Your task to perform on an android device: see sites visited before in the chrome app Image 0: 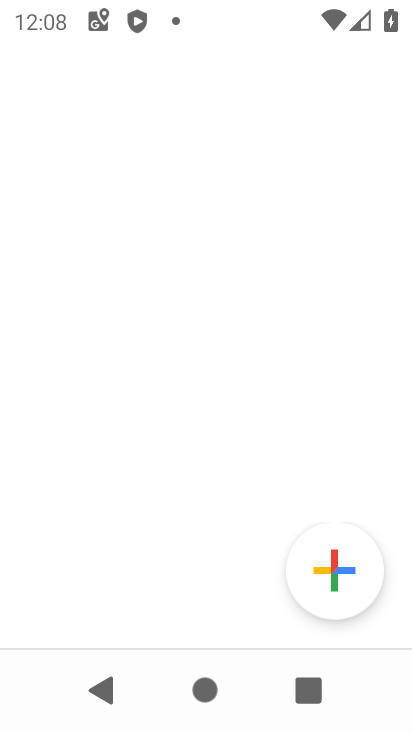
Step 0: drag from (384, 506) to (370, 43)
Your task to perform on an android device: see sites visited before in the chrome app Image 1: 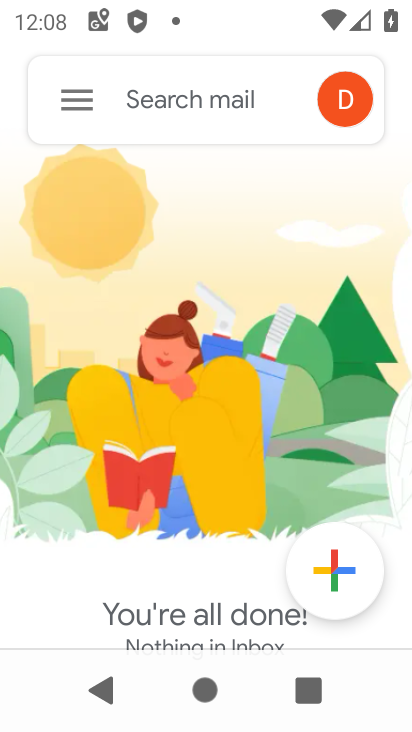
Step 1: press home button
Your task to perform on an android device: see sites visited before in the chrome app Image 2: 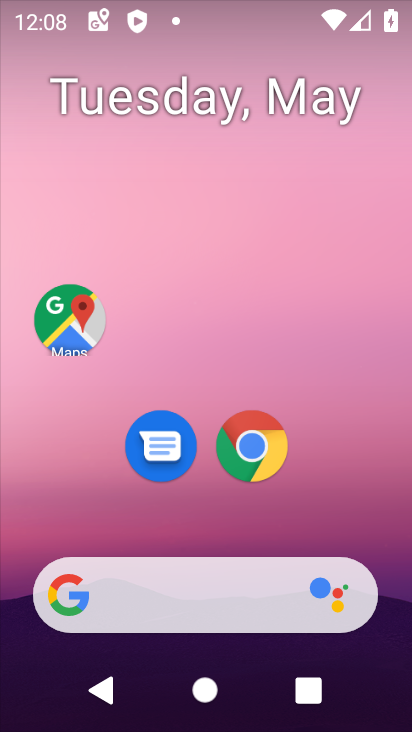
Step 2: drag from (352, 513) to (362, 56)
Your task to perform on an android device: see sites visited before in the chrome app Image 3: 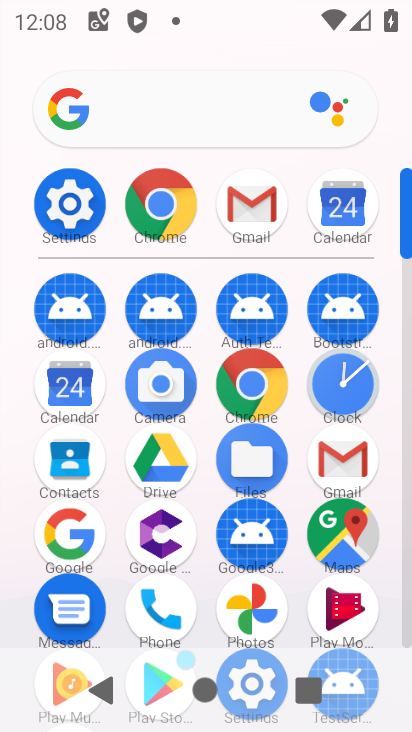
Step 3: click (178, 176)
Your task to perform on an android device: see sites visited before in the chrome app Image 4: 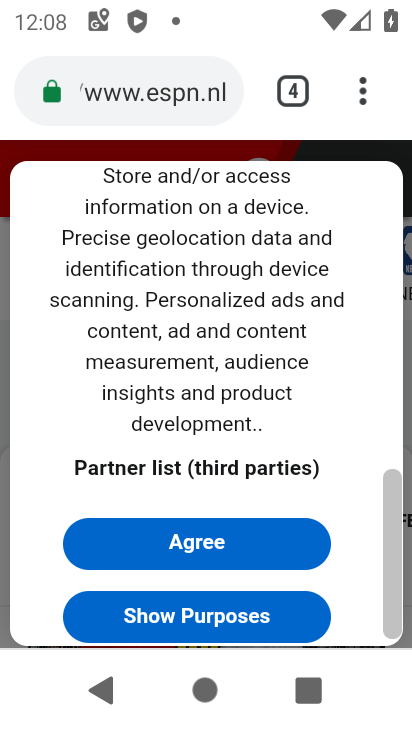
Step 4: task complete